Your task to perform on an android device: turn off data saver in the chrome app Image 0: 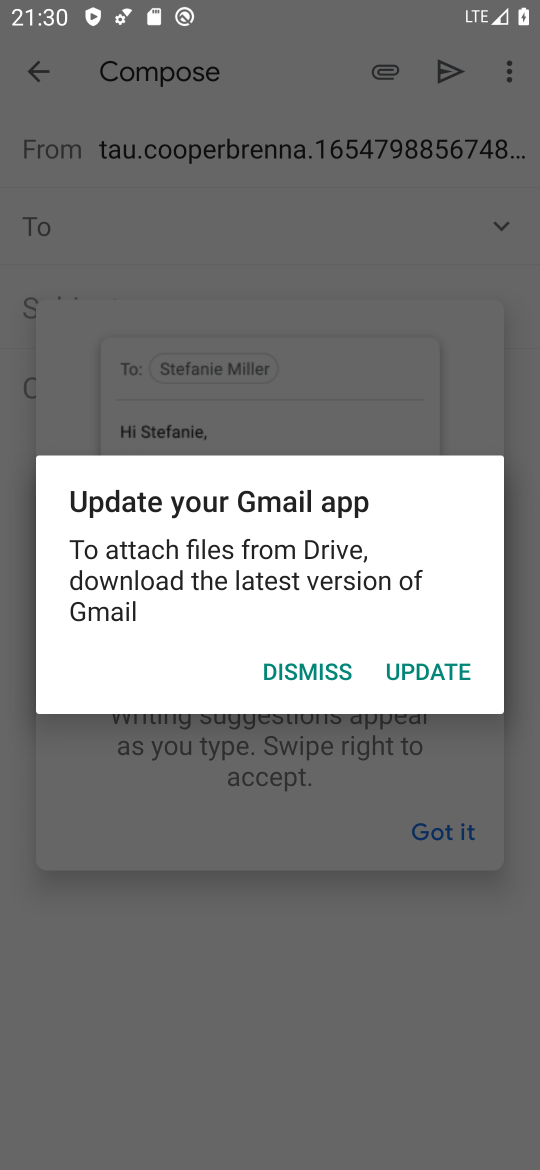
Step 0: press home button
Your task to perform on an android device: turn off data saver in the chrome app Image 1: 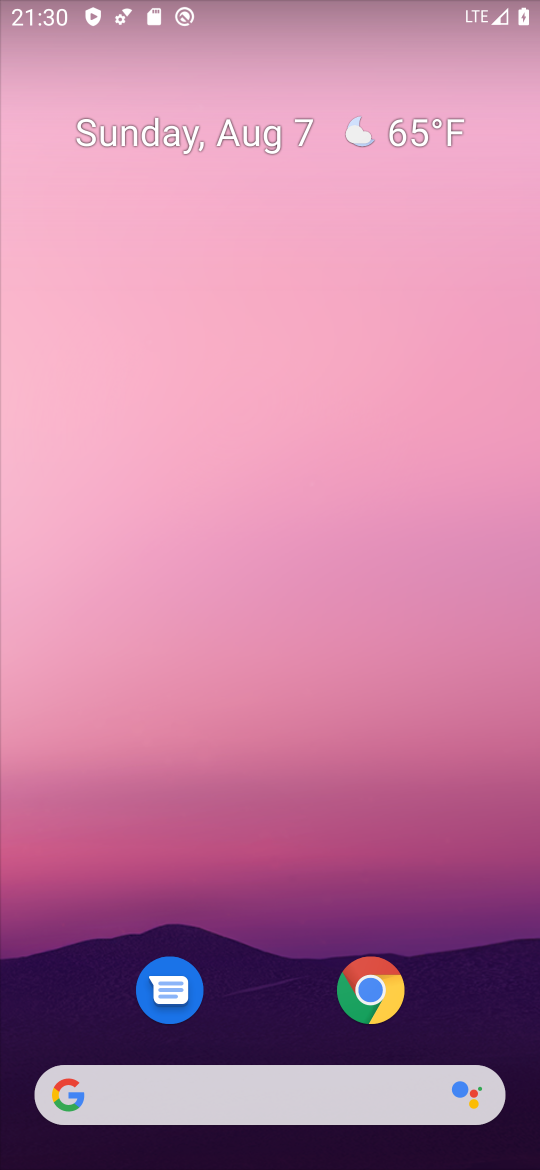
Step 1: click (376, 986)
Your task to perform on an android device: turn off data saver in the chrome app Image 2: 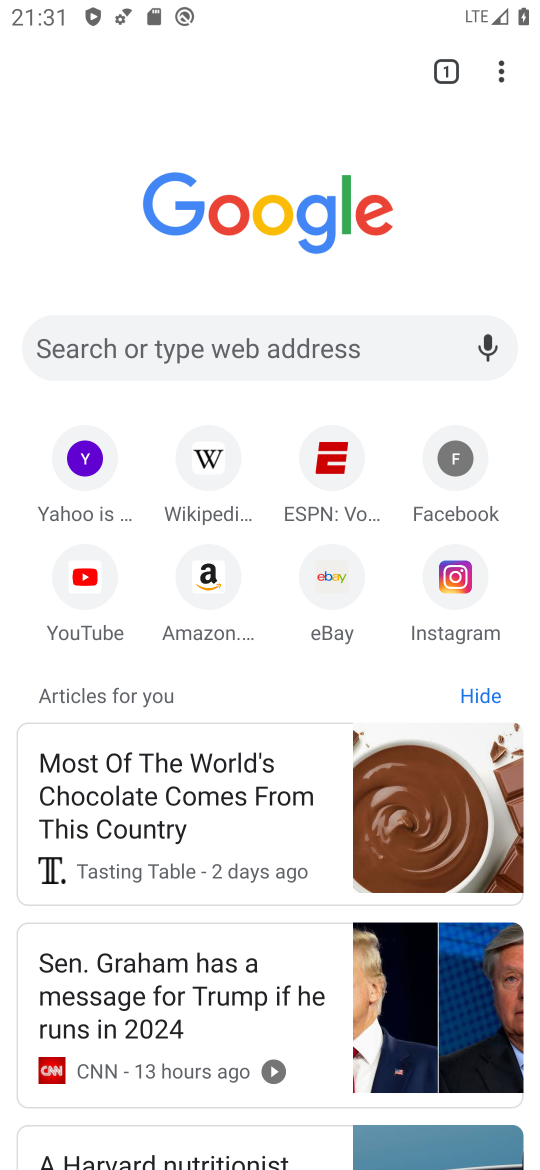
Step 2: click (502, 67)
Your task to perform on an android device: turn off data saver in the chrome app Image 3: 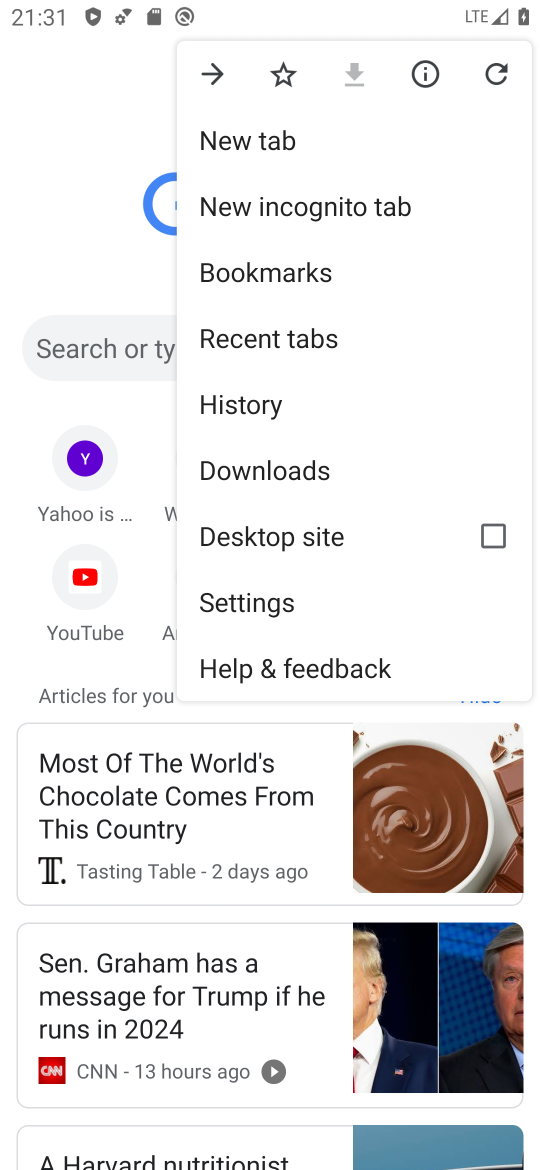
Step 3: click (318, 608)
Your task to perform on an android device: turn off data saver in the chrome app Image 4: 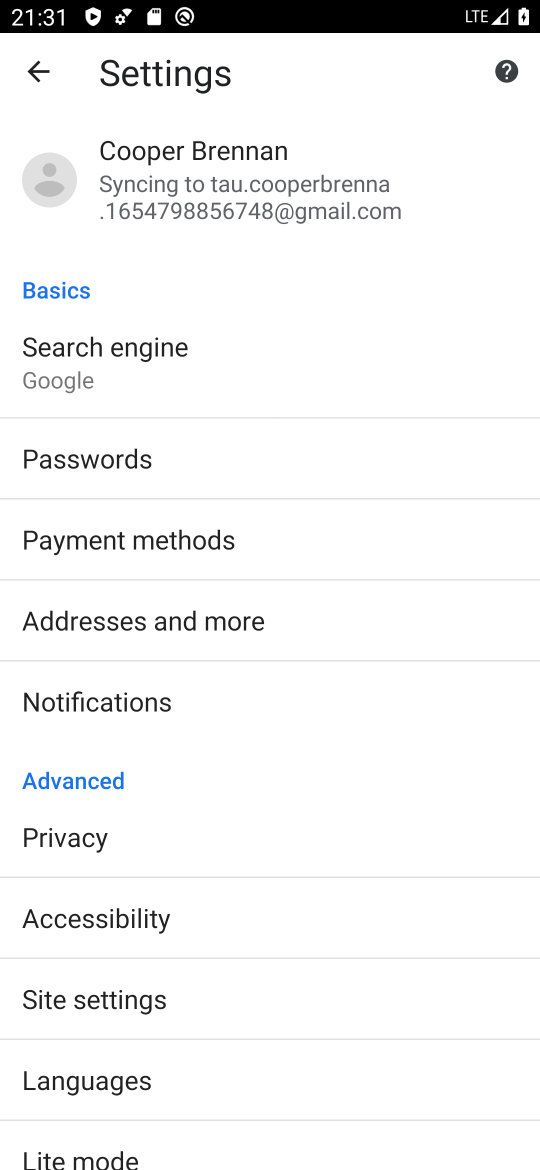
Step 4: click (222, 1148)
Your task to perform on an android device: turn off data saver in the chrome app Image 5: 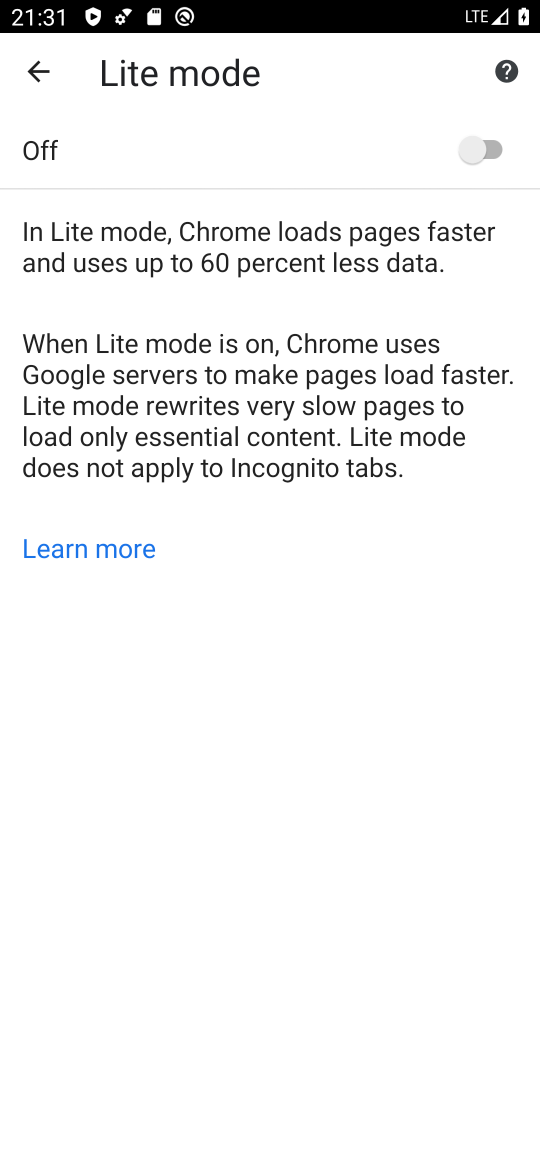
Step 5: task complete